Your task to perform on an android device: turn off location history Image 0: 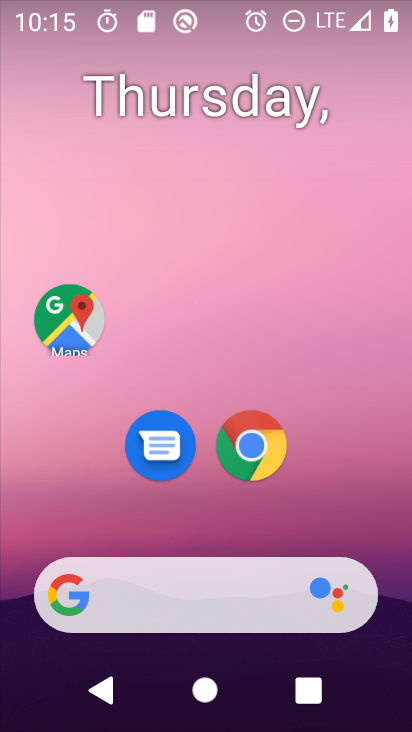
Step 0: click (211, 439)
Your task to perform on an android device: turn off location history Image 1: 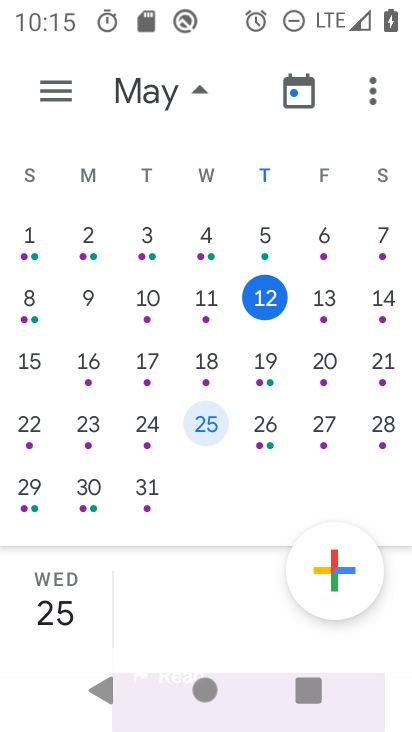
Step 1: press home button
Your task to perform on an android device: turn off location history Image 2: 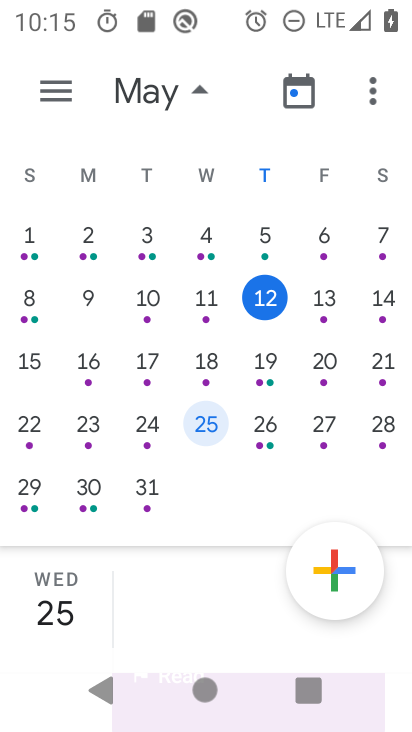
Step 2: press home button
Your task to perform on an android device: turn off location history Image 3: 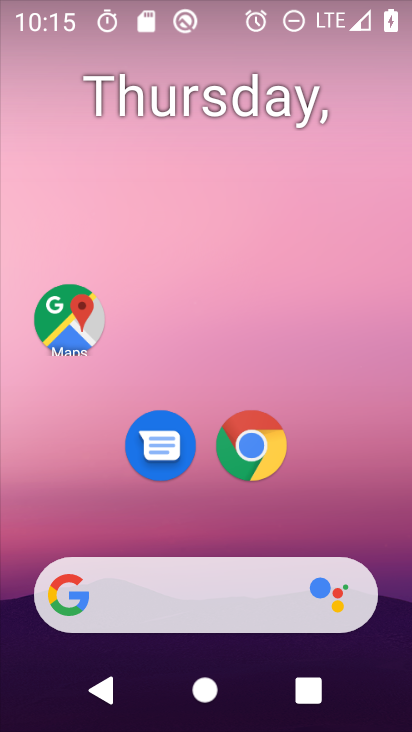
Step 3: drag from (203, 539) to (211, 84)
Your task to perform on an android device: turn off location history Image 4: 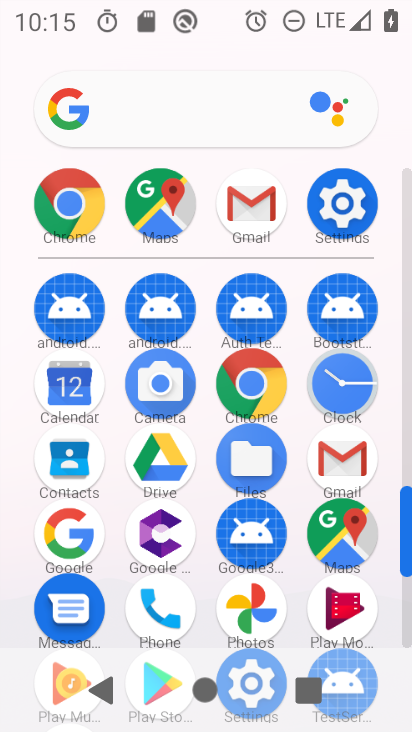
Step 4: click (324, 210)
Your task to perform on an android device: turn off location history Image 5: 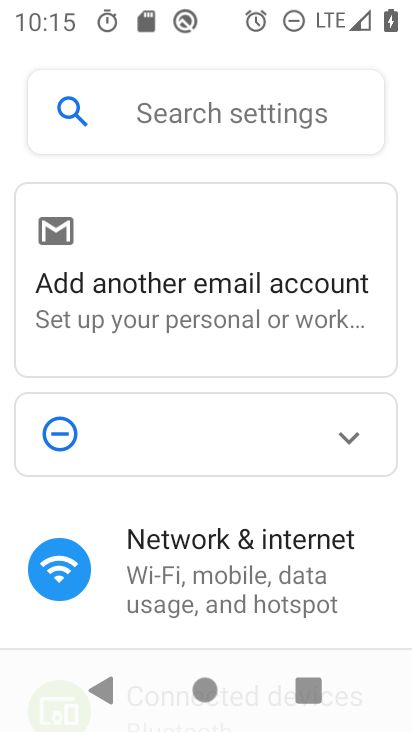
Step 5: drag from (207, 540) to (264, 31)
Your task to perform on an android device: turn off location history Image 6: 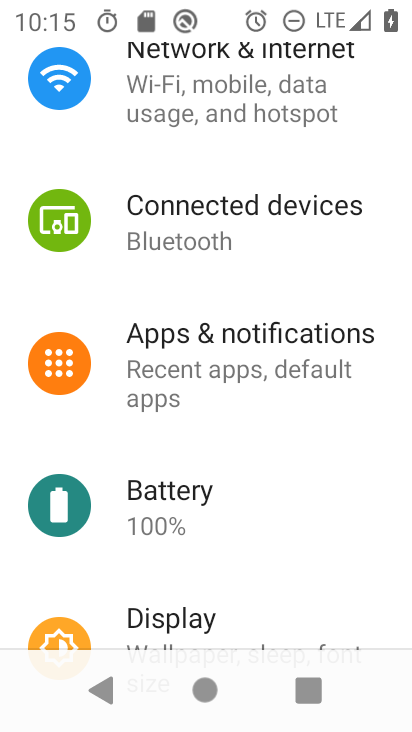
Step 6: drag from (201, 553) to (264, 116)
Your task to perform on an android device: turn off location history Image 7: 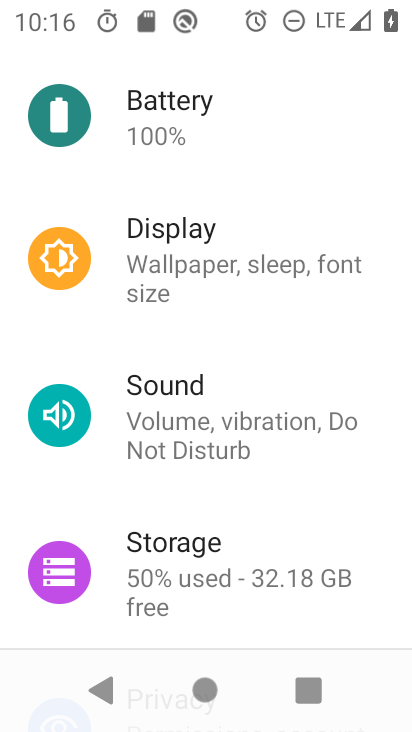
Step 7: drag from (213, 563) to (251, 188)
Your task to perform on an android device: turn off location history Image 8: 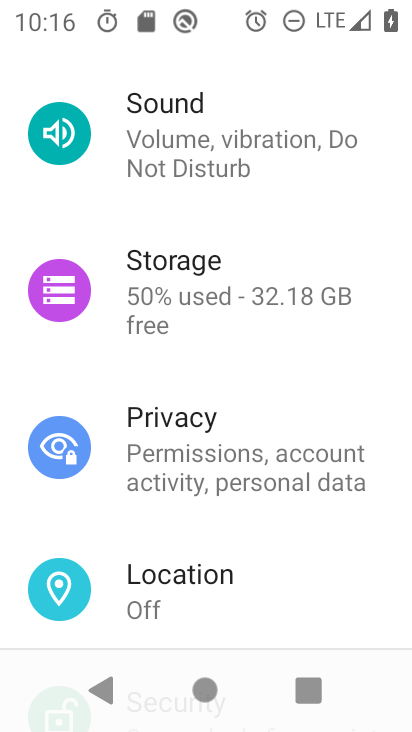
Step 8: click (207, 567)
Your task to perform on an android device: turn off location history Image 9: 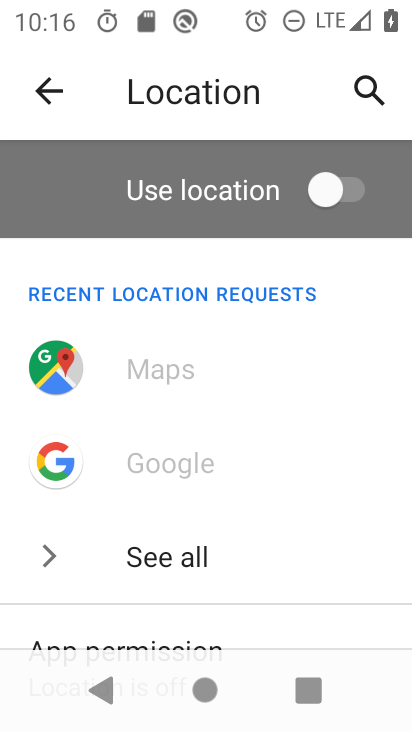
Step 9: task complete